Your task to perform on an android device: Go to Yahoo.com Image 0: 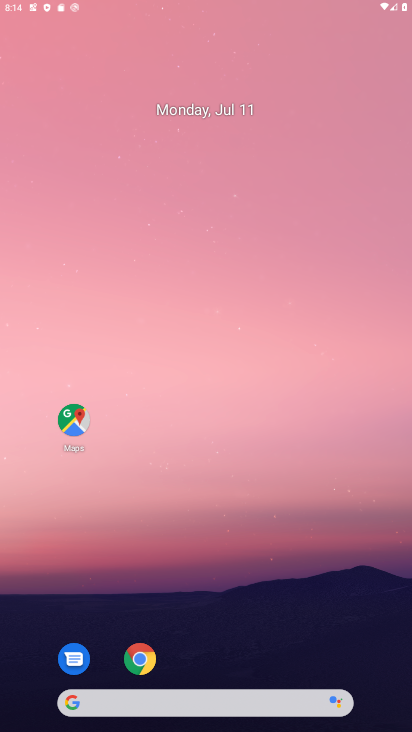
Step 0: click (389, 336)
Your task to perform on an android device: Go to Yahoo.com Image 1: 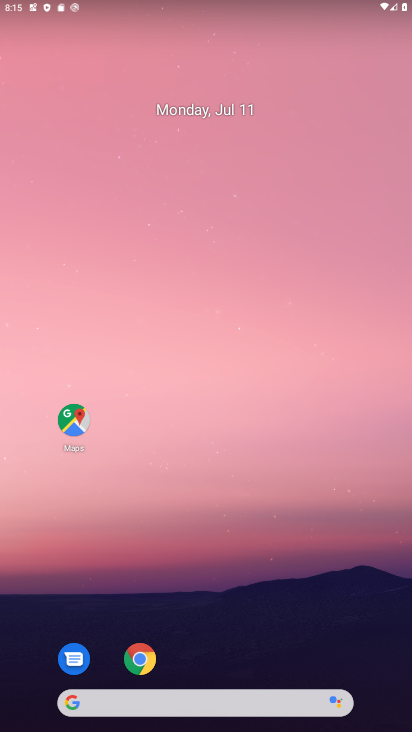
Step 1: drag from (191, 652) to (207, 39)
Your task to perform on an android device: Go to Yahoo.com Image 2: 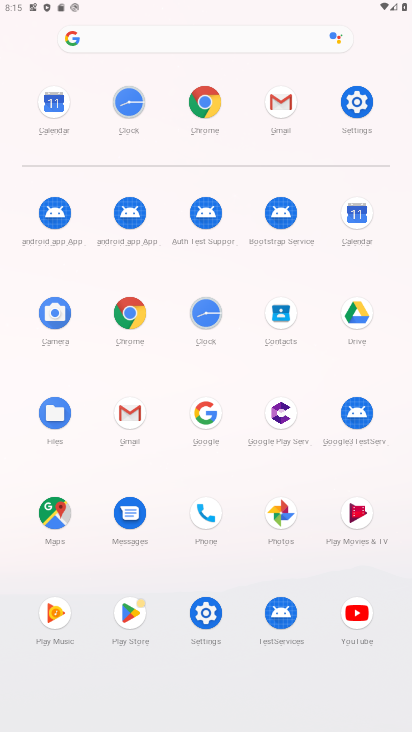
Step 2: click (210, 95)
Your task to perform on an android device: Go to Yahoo.com Image 3: 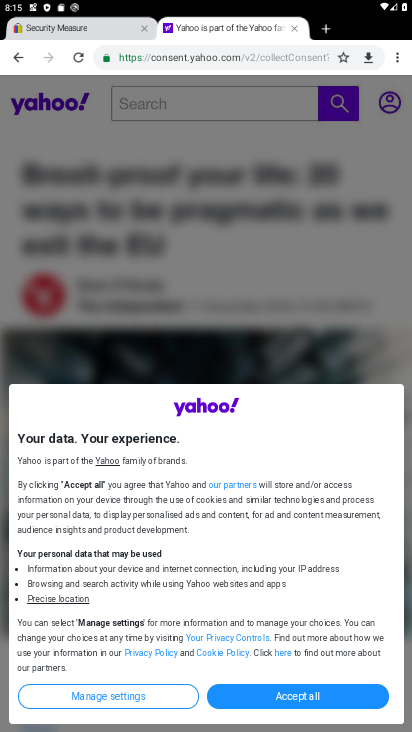
Step 3: task complete